Your task to perform on an android device: check out phone information Image 0: 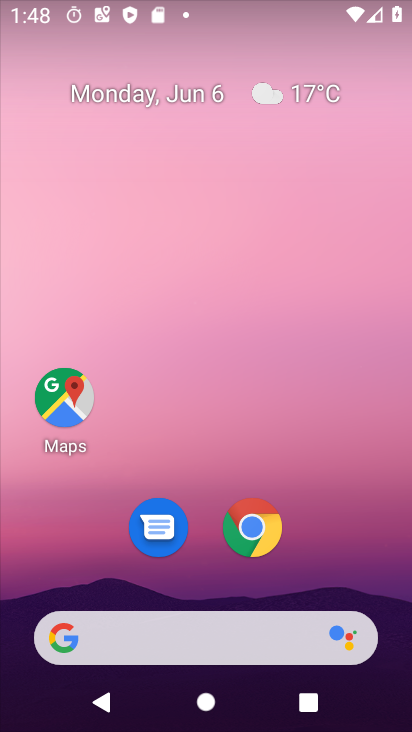
Step 0: drag from (257, 727) to (226, 43)
Your task to perform on an android device: check out phone information Image 1: 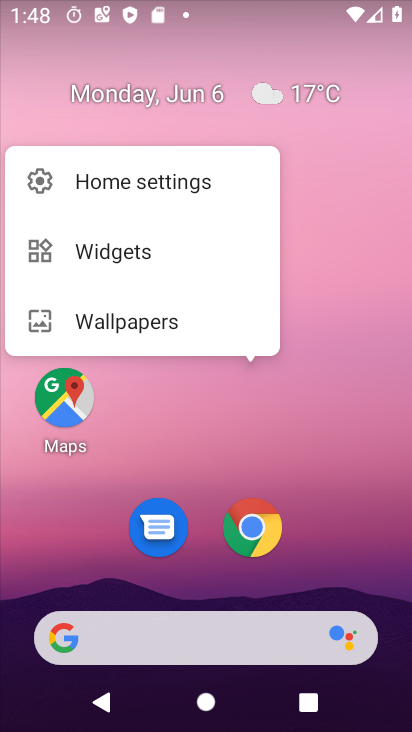
Step 1: click (322, 433)
Your task to perform on an android device: check out phone information Image 2: 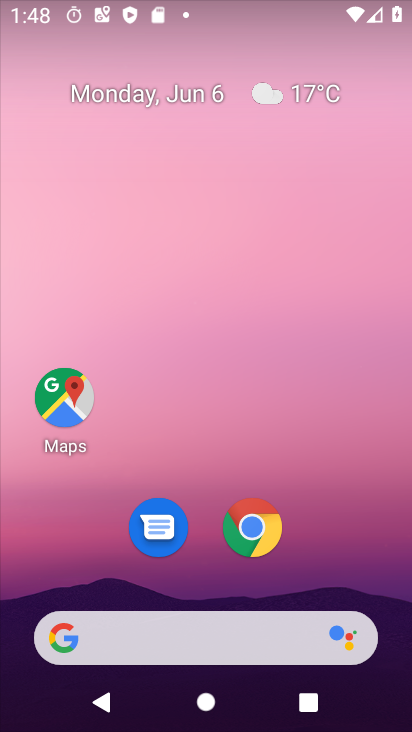
Step 2: drag from (246, 714) to (214, 139)
Your task to perform on an android device: check out phone information Image 3: 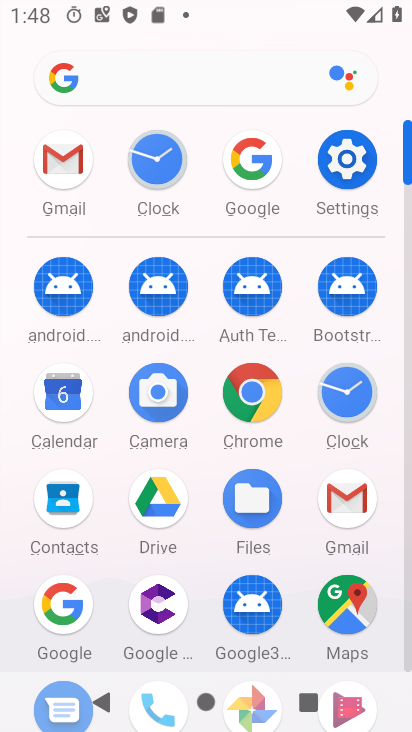
Step 3: click (362, 159)
Your task to perform on an android device: check out phone information Image 4: 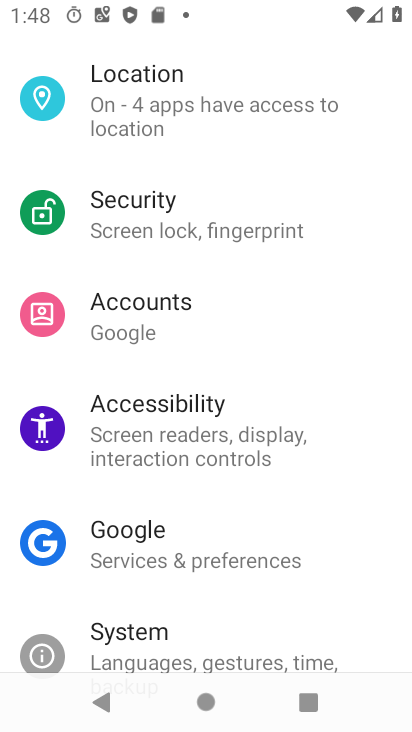
Step 4: drag from (183, 654) to (185, 200)
Your task to perform on an android device: check out phone information Image 5: 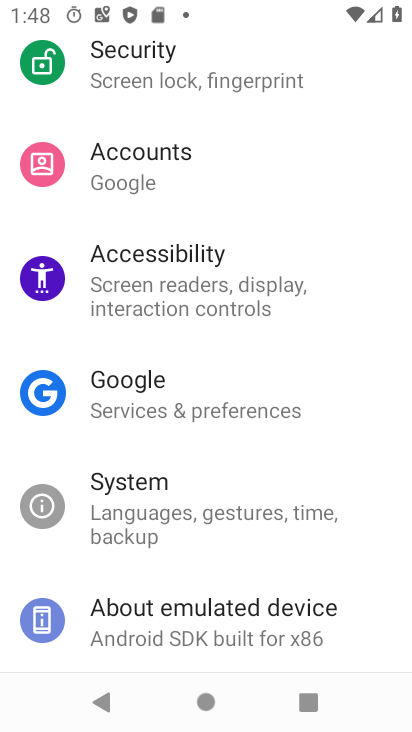
Step 5: click (184, 614)
Your task to perform on an android device: check out phone information Image 6: 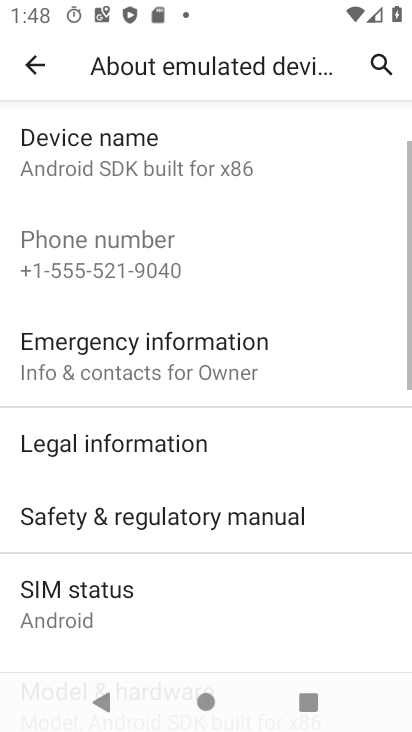
Step 6: task complete